Your task to perform on an android device: change notifications settings Image 0: 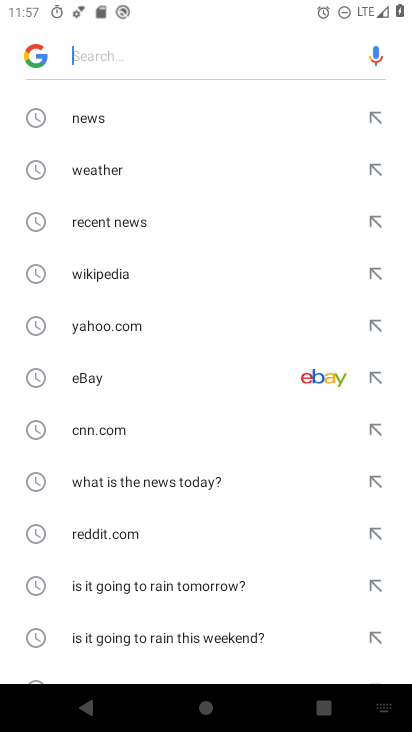
Step 0: press back button
Your task to perform on an android device: change notifications settings Image 1: 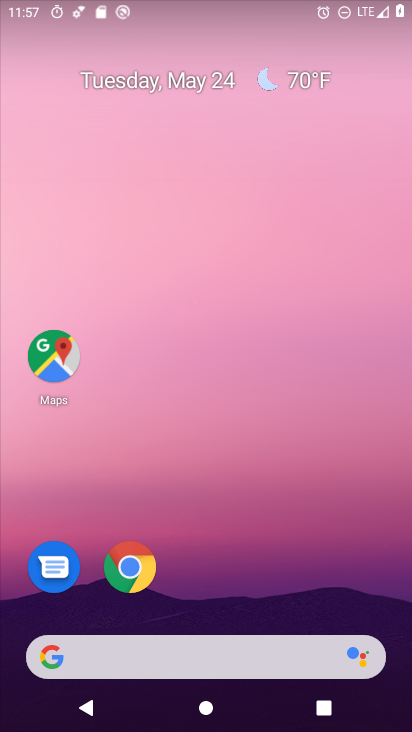
Step 1: drag from (391, 642) to (351, 214)
Your task to perform on an android device: change notifications settings Image 2: 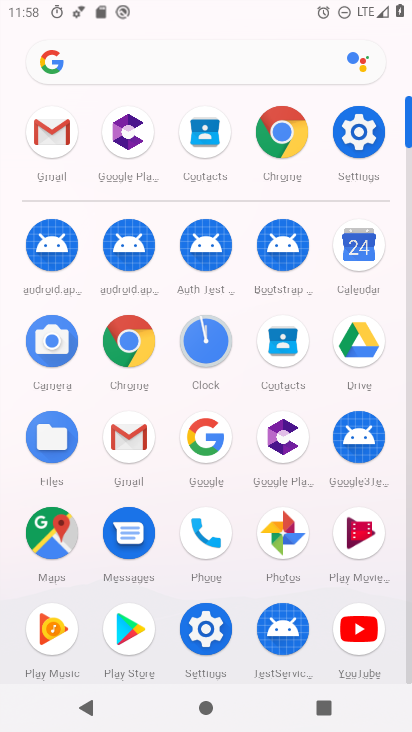
Step 2: click (345, 145)
Your task to perform on an android device: change notifications settings Image 3: 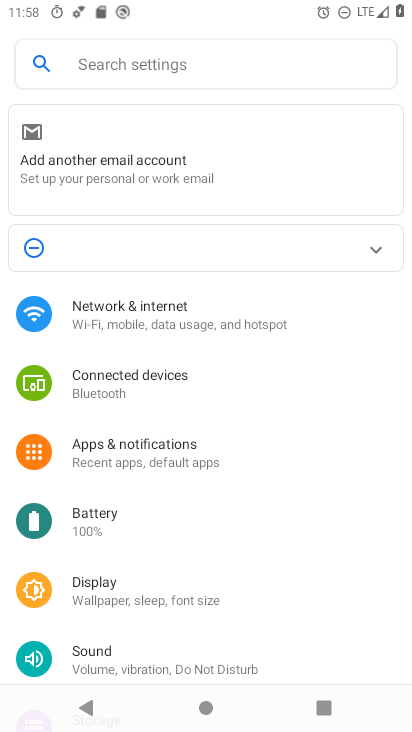
Step 3: click (144, 339)
Your task to perform on an android device: change notifications settings Image 4: 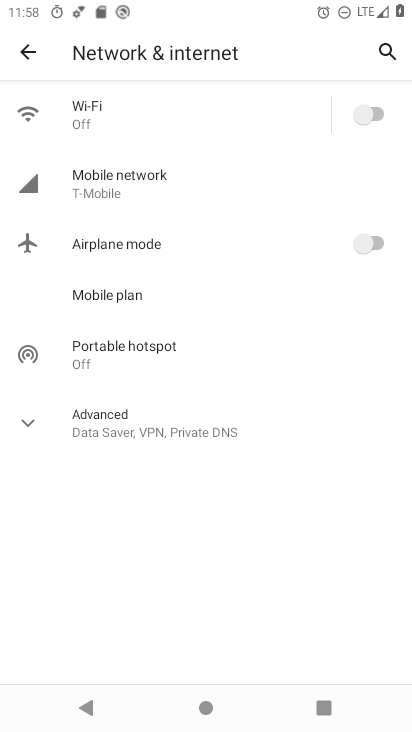
Step 4: click (27, 42)
Your task to perform on an android device: change notifications settings Image 5: 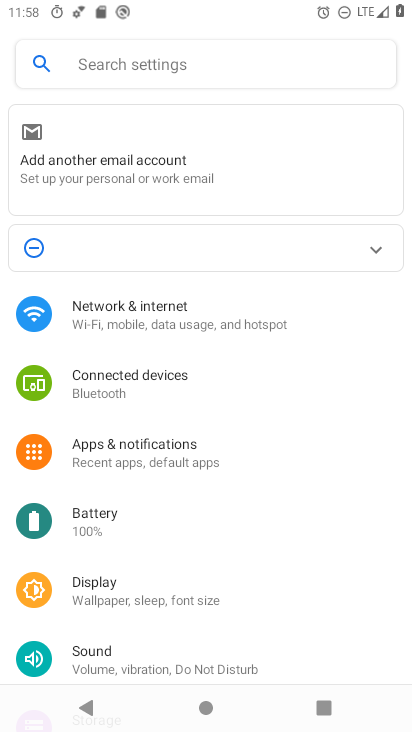
Step 5: click (127, 458)
Your task to perform on an android device: change notifications settings Image 6: 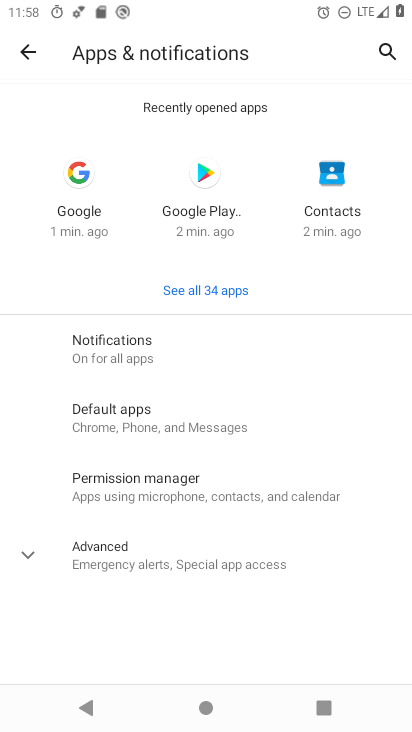
Step 6: click (117, 344)
Your task to perform on an android device: change notifications settings Image 7: 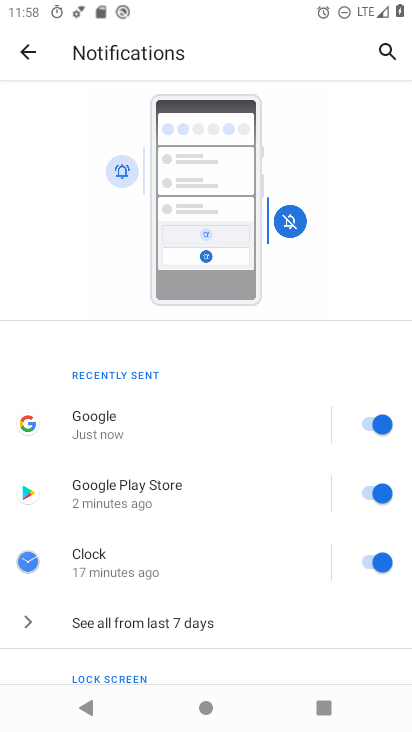
Step 7: drag from (230, 664) to (254, 366)
Your task to perform on an android device: change notifications settings Image 8: 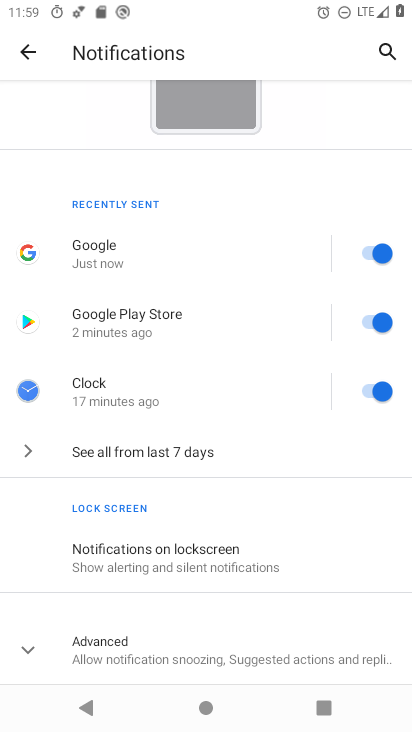
Step 8: drag from (273, 242) to (255, 565)
Your task to perform on an android device: change notifications settings Image 9: 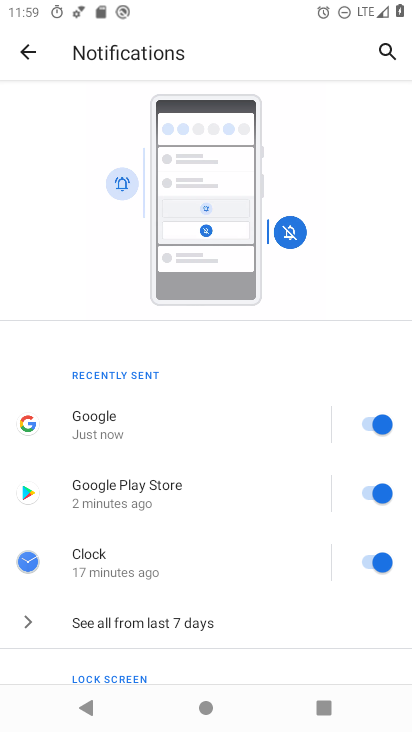
Step 9: click (366, 422)
Your task to perform on an android device: change notifications settings Image 10: 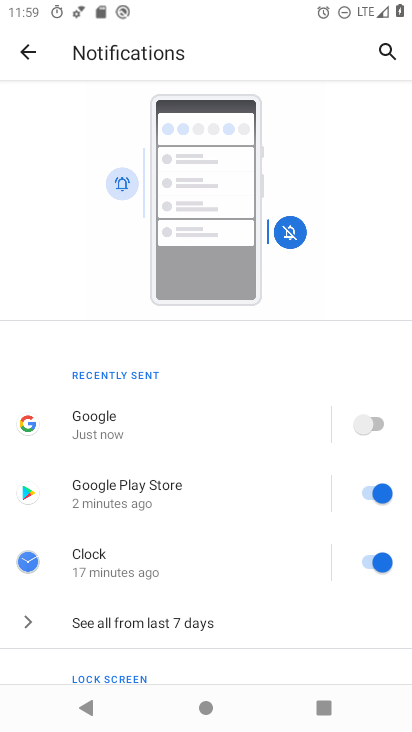
Step 10: click (364, 495)
Your task to perform on an android device: change notifications settings Image 11: 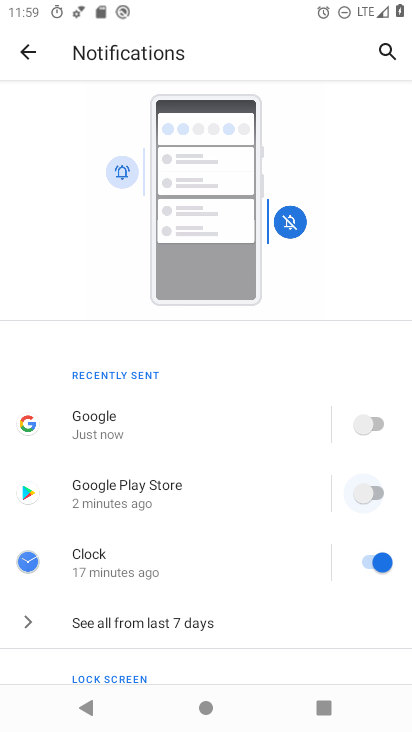
Step 11: click (368, 568)
Your task to perform on an android device: change notifications settings Image 12: 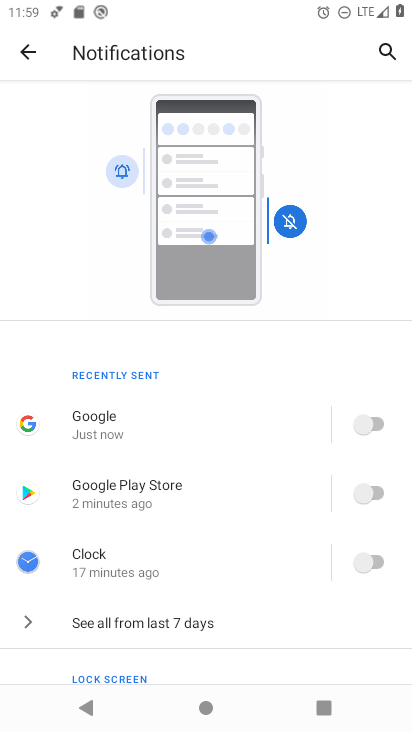
Step 12: task complete